Your task to perform on an android device: turn on translation in the chrome app Image 0: 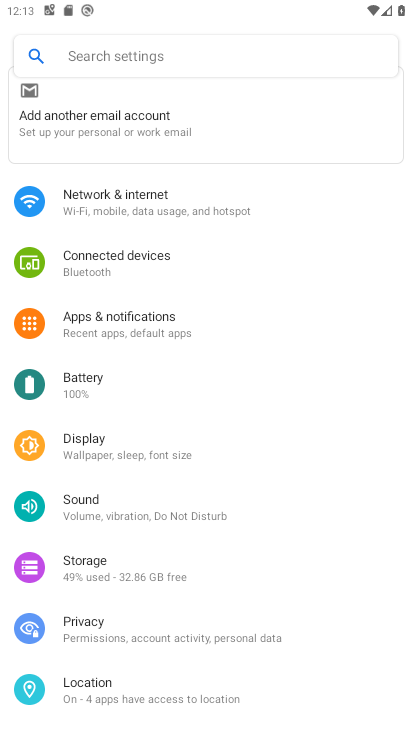
Step 0: press home button
Your task to perform on an android device: turn on translation in the chrome app Image 1: 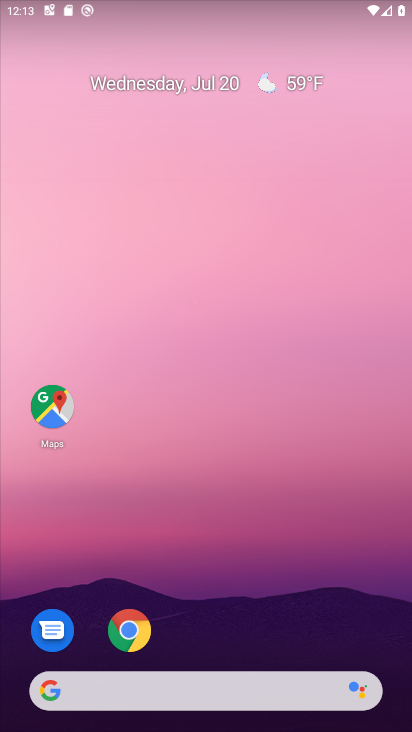
Step 1: click (130, 631)
Your task to perform on an android device: turn on translation in the chrome app Image 2: 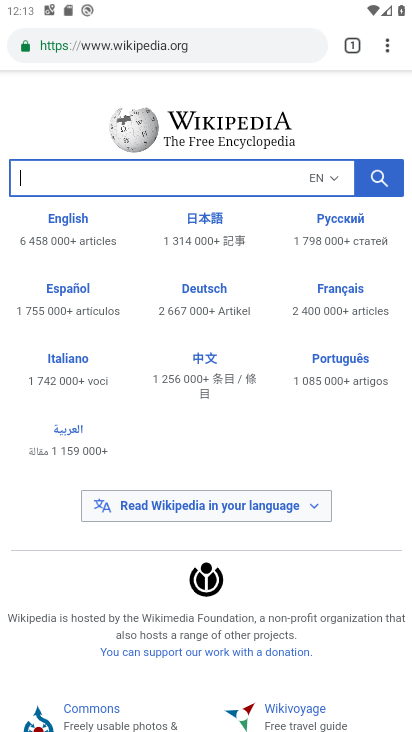
Step 2: click (386, 50)
Your task to perform on an android device: turn on translation in the chrome app Image 3: 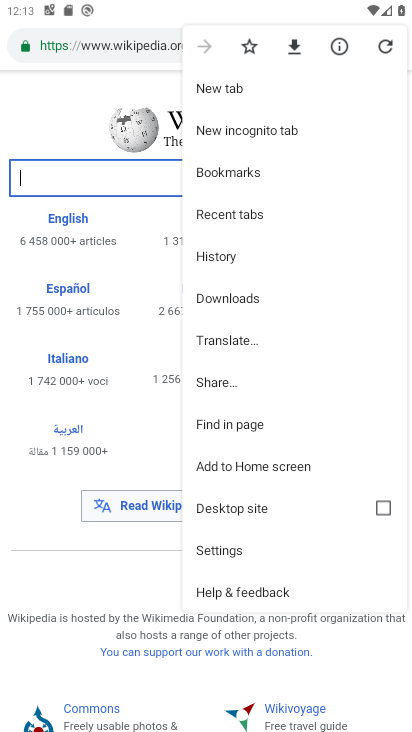
Step 3: click (224, 550)
Your task to perform on an android device: turn on translation in the chrome app Image 4: 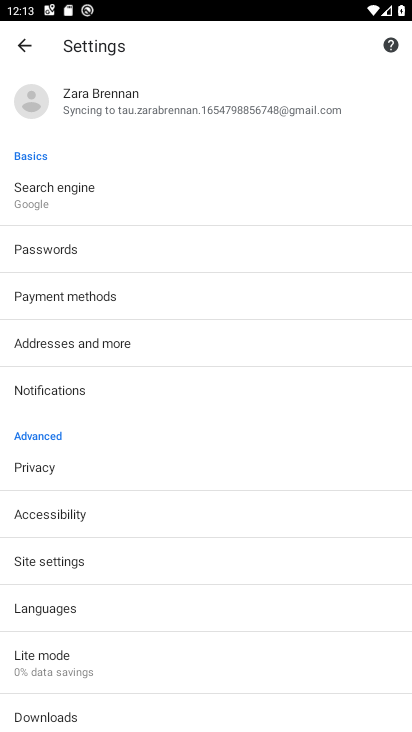
Step 4: click (47, 615)
Your task to perform on an android device: turn on translation in the chrome app Image 5: 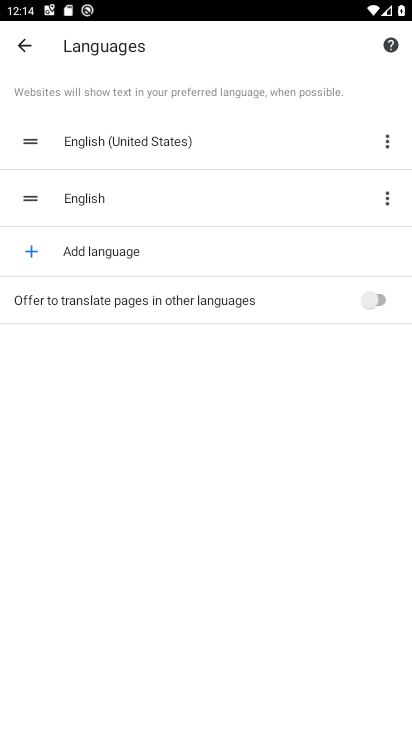
Step 5: click (384, 298)
Your task to perform on an android device: turn on translation in the chrome app Image 6: 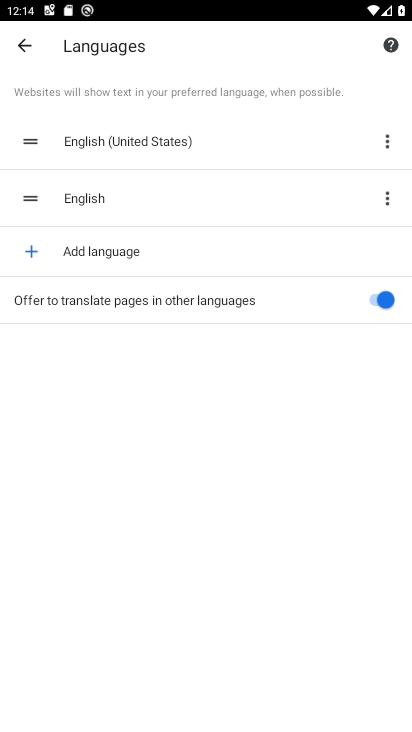
Step 6: task complete